Your task to perform on an android device: turn off priority inbox in the gmail app Image 0: 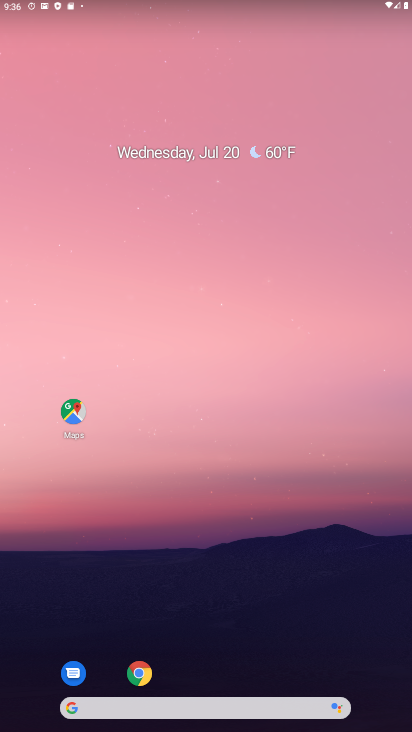
Step 0: drag from (203, 662) to (221, 97)
Your task to perform on an android device: turn off priority inbox in the gmail app Image 1: 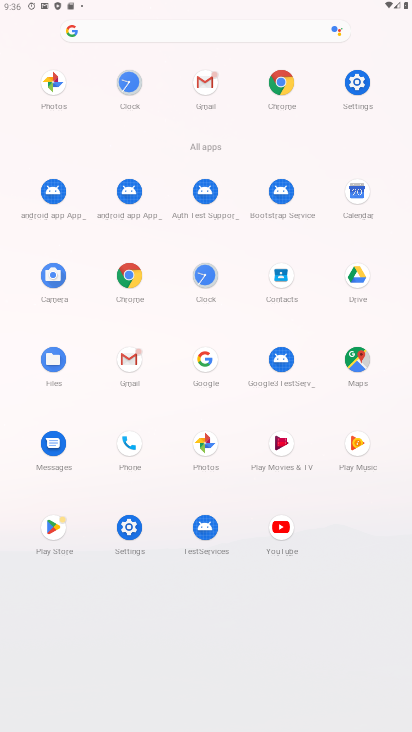
Step 1: click (134, 368)
Your task to perform on an android device: turn off priority inbox in the gmail app Image 2: 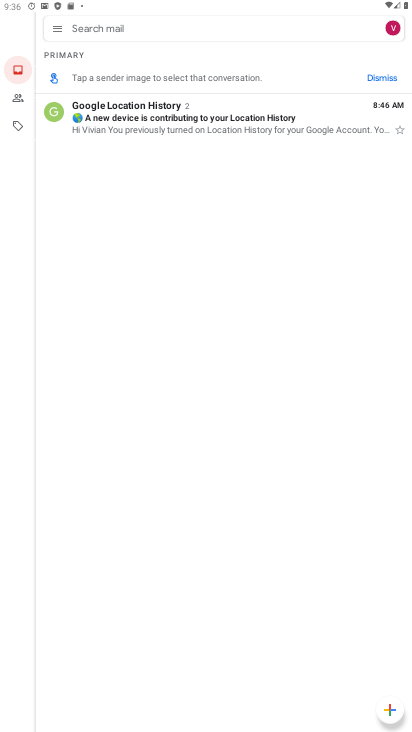
Step 2: click (53, 29)
Your task to perform on an android device: turn off priority inbox in the gmail app Image 3: 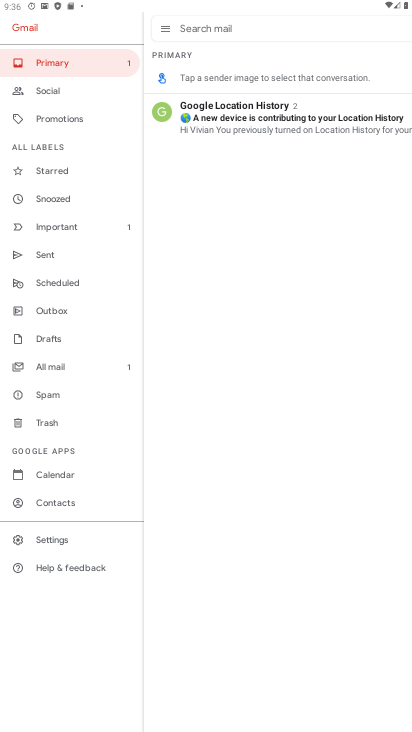
Step 3: click (53, 539)
Your task to perform on an android device: turn off priority inbox in the gmail app Image 4: 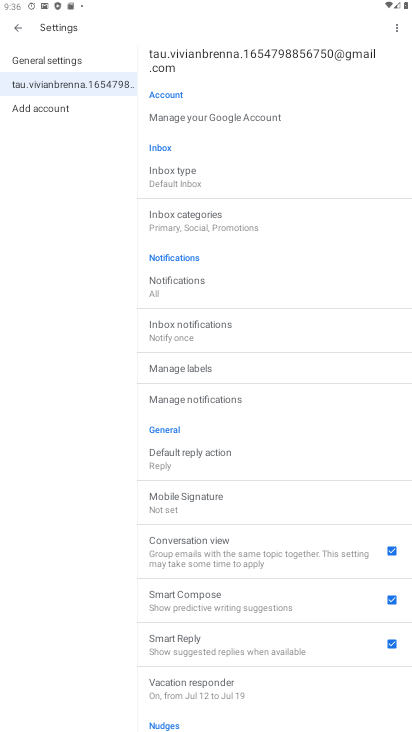
Step 4: click (177, 180)
Your task to perform on an android device: turn off priority inbox in the gmail app Image 5: 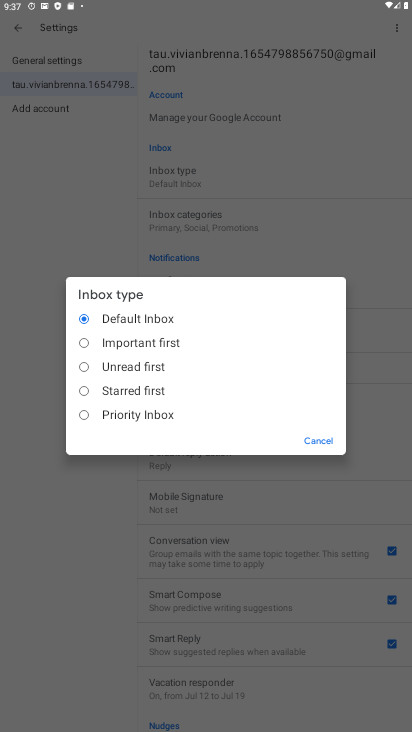
Step 5: click (149, 391)
Your task to perform on an android device: turn off priority inbox in the gmail app Image 6: 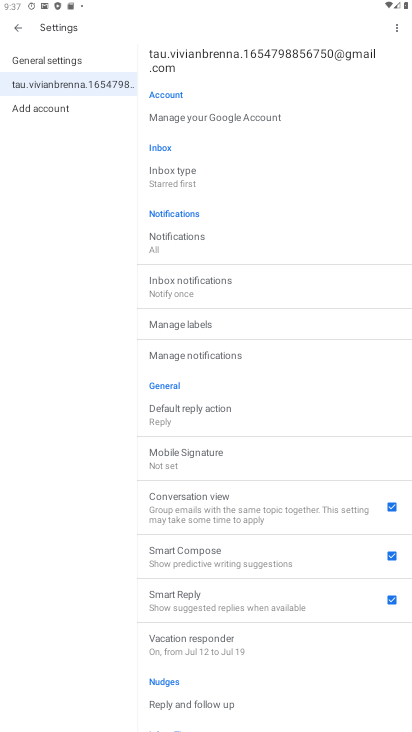
Step 6: task complete